Your task to perform on an android device: check battery use Image 0: 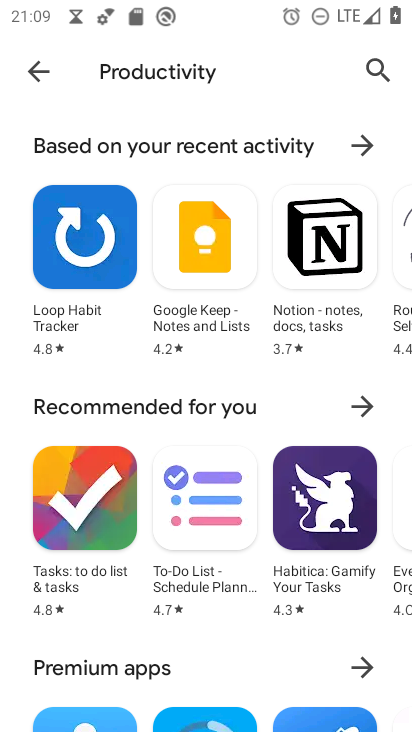
Step 0: press home button
Your task to perform on an android device: check battery use Image 1: 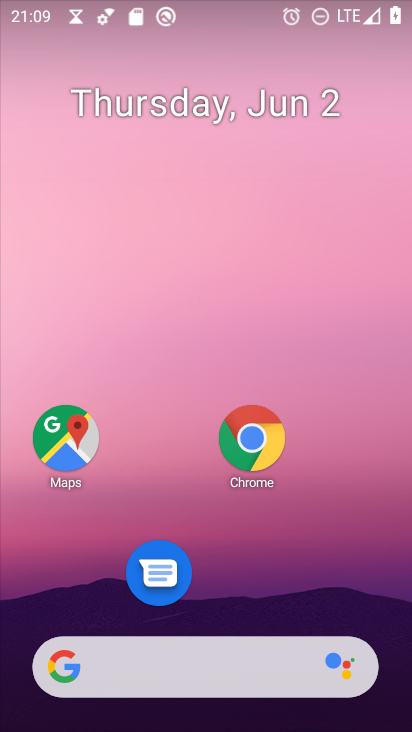
Step 1: drag from (176, 679) to (342, 86)
Your task to perform on an android device: check battery use Image 2: 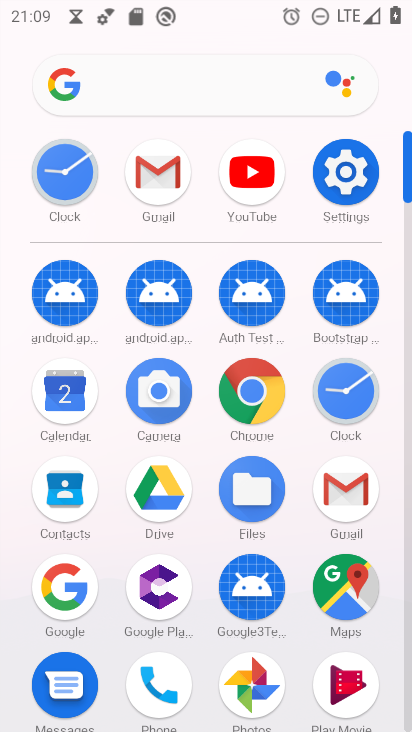
Step 2: click (352, 183)
Your task to perform on an android device: check battery use Image 3: 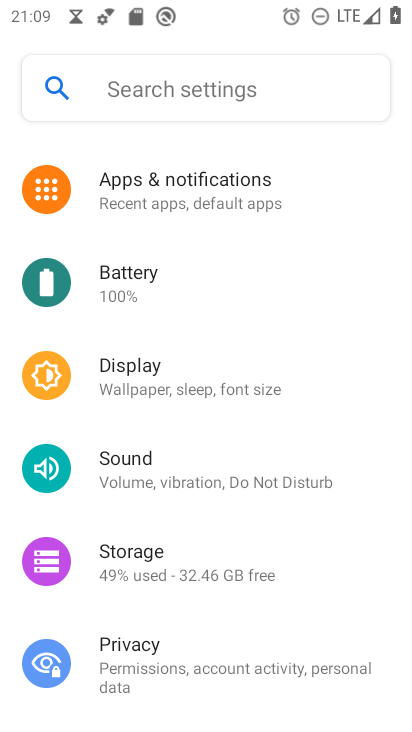
Step 3: click (133, 285)
Your task to perform on an android device: check battery use Image 4: 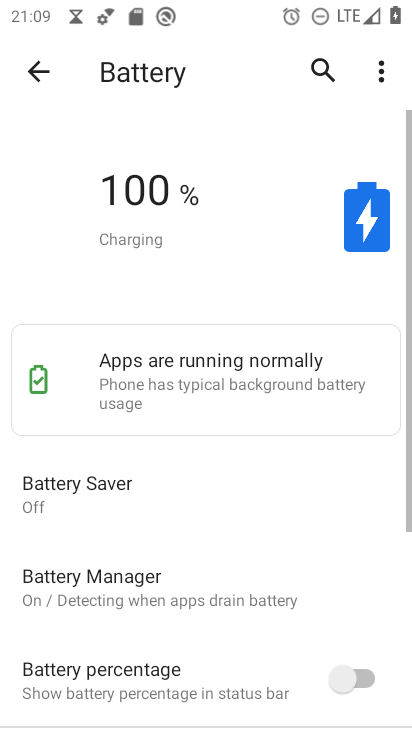
Step 4: click (379, 79)
Your task to perform on an android device: check battery use Image 5: 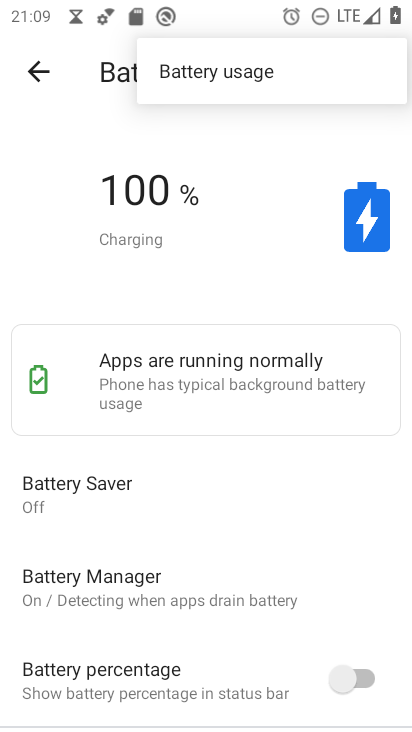
Step 5: click (250, 73)
Your task to perform on an android device: check battery use Image 6: 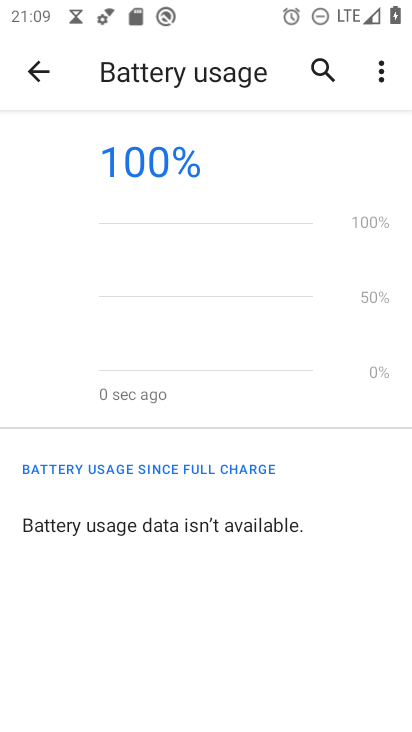
Step 6: task complete